Your task to perform on an android device: Open Amazon Image 0: 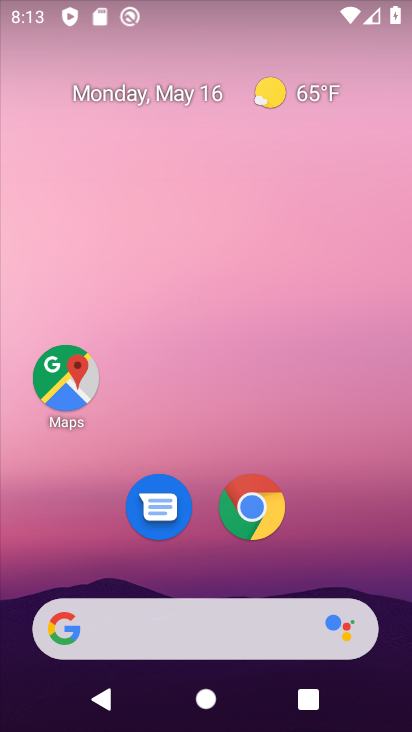
Step 0: click (245, 489)
Your task to perform on an android device: Open Amazon Image 1: 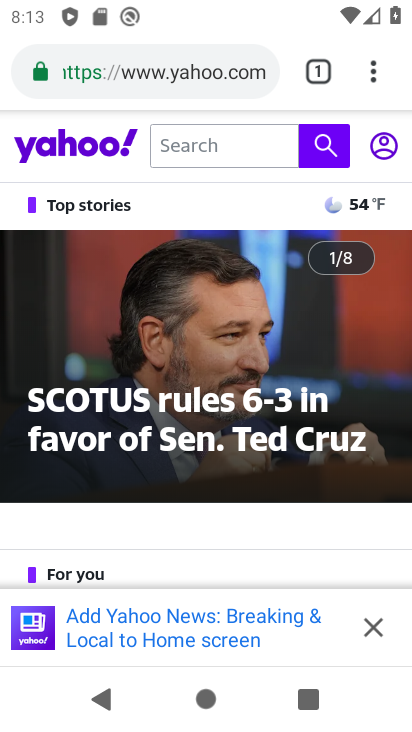
Step 1: click (322, 56)
Your task to perform on an android device: Open Amazon Image 2: 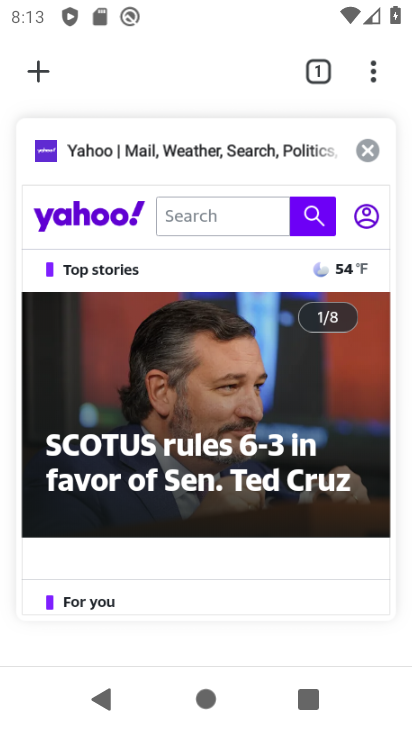
Step 2: click (45, 79)
Your task to perform on an android device: Open Amazon Image 3: 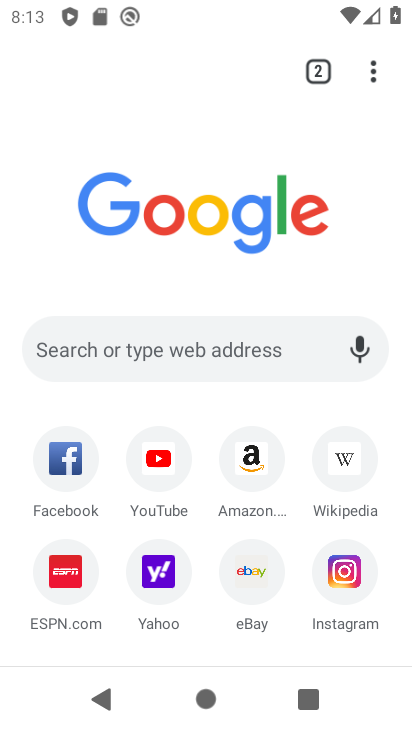
Step 3: click (259, 472)
Your task to perform on an android device: Open Amazon Image 4: 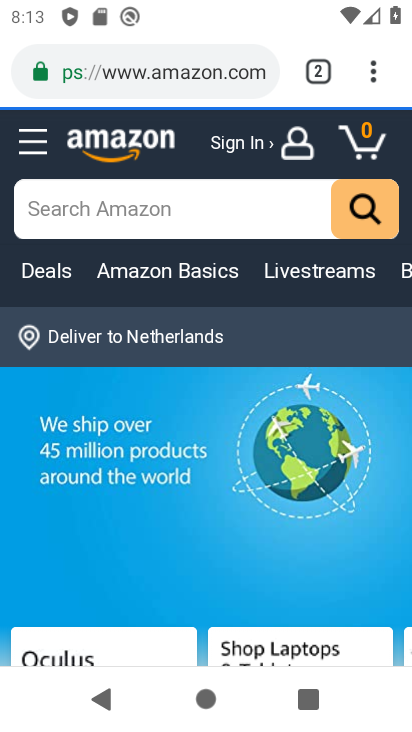
Step 4: task complete